Your task to perform on an android device: Open calendar and show me the third week of next month Image 0: 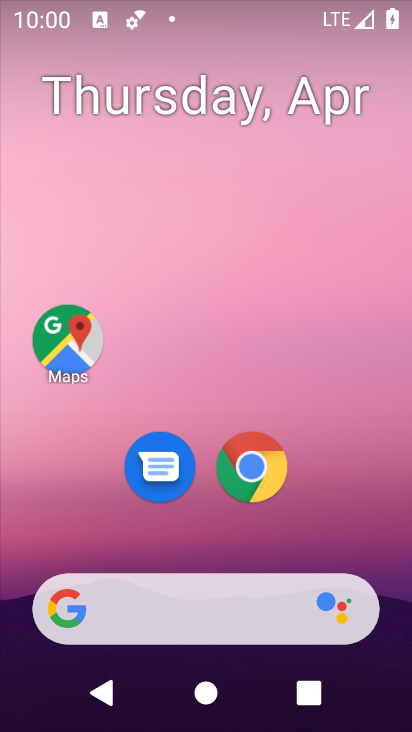
Step 0: drag from (348, 520) to (314, 112)
Your task to perform on an android device: Open calendar and show me the third week of next month Image 1: 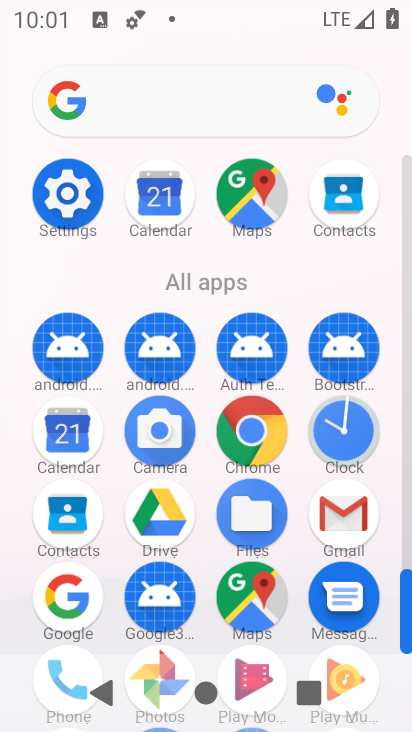
Step 1: click (173, 202)
Your task to perform on an android device: Open calendar and show me the third week of next month Image 2: 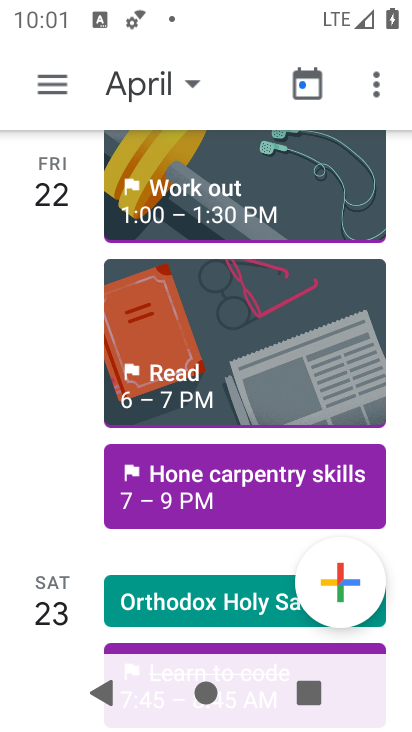
Step 2: click (62, 91)
Your task to perform on an android device: Open calendar and show me the third week of next month Image 3: 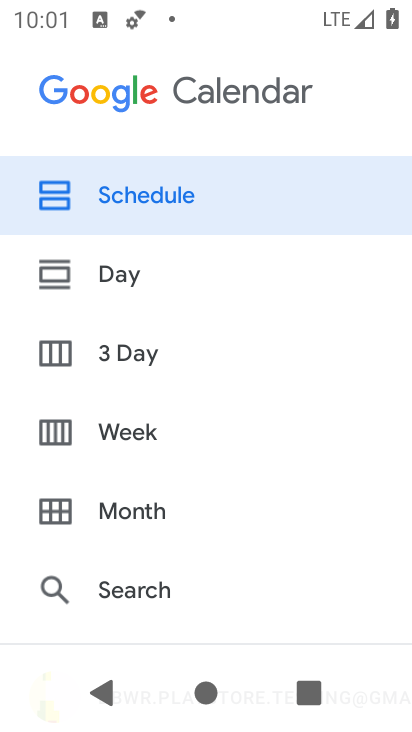
Step 3: click (58, 420)
Your task to perform on an android device: Open calendar and show me the third week of next month Image 4: 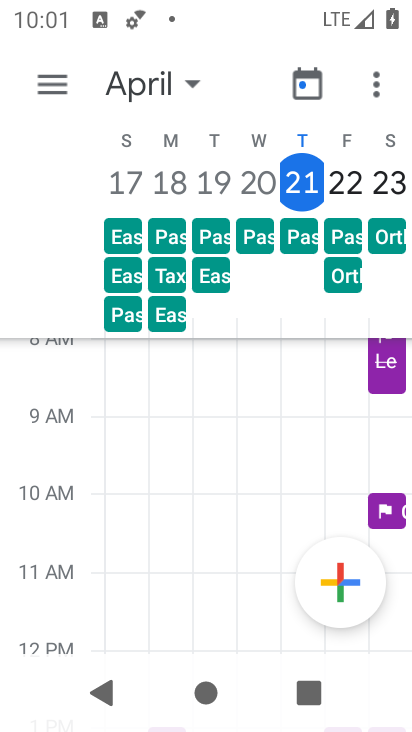
Step 4: task complete